Your task to perform on an android device: remove spam from my inbox in the gmail app Image 0: 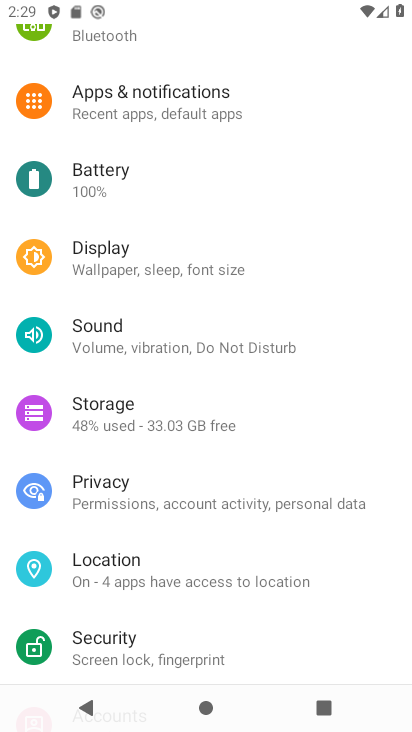
Step 0: press back button
Your task to perform on an android device: remove spam from my inbox in the gmail app Image 1: 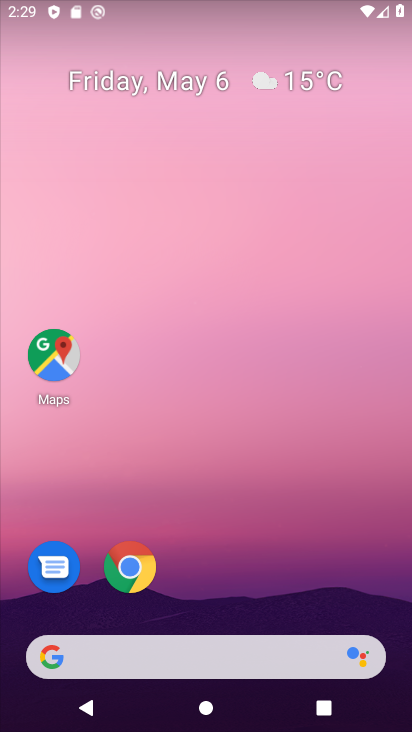
Step 1: drag from (174, 624) to (252, 39)
Your task to perform on an android device: remove spam from my inbox in the gmail app Image 2: 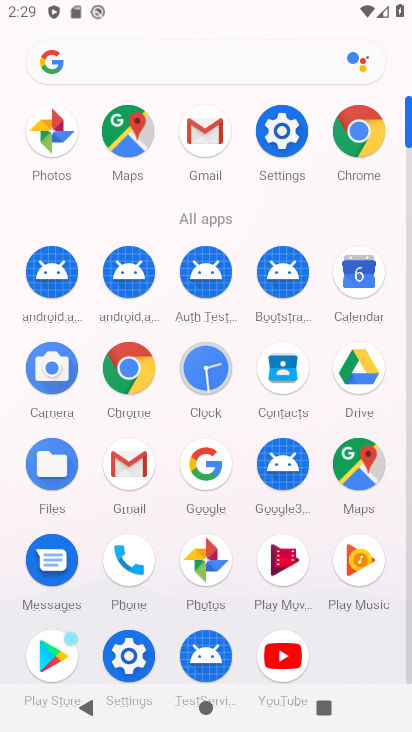
Step 2: click (122, 467)
Your task to perform on an android device: remove spam from my inbox in the gmail app Image 3: 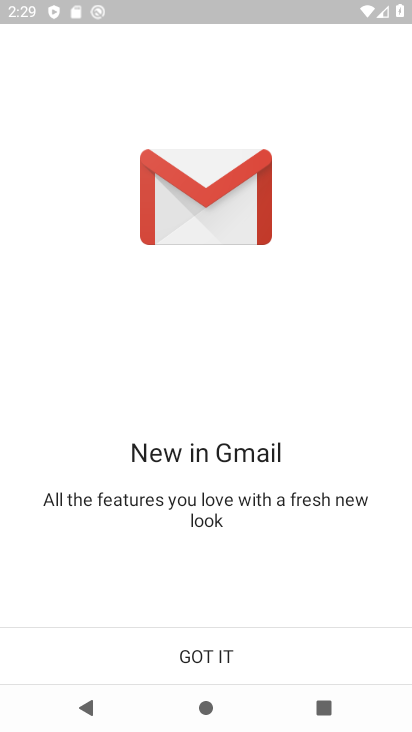
Step 3: click (218, 652)
Your task to perform on an android device: remove spam from my inbox in the gmail app Image 4: 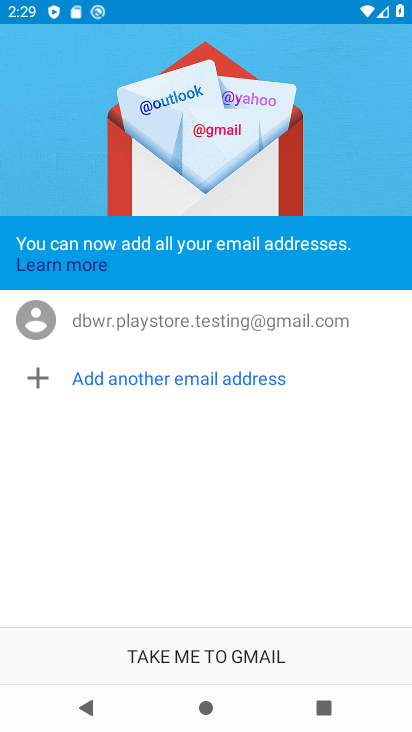
Step 4: click (218, 652)
Your task to perform on an android device: remove spam from my inbox in the gmail app Image 5: 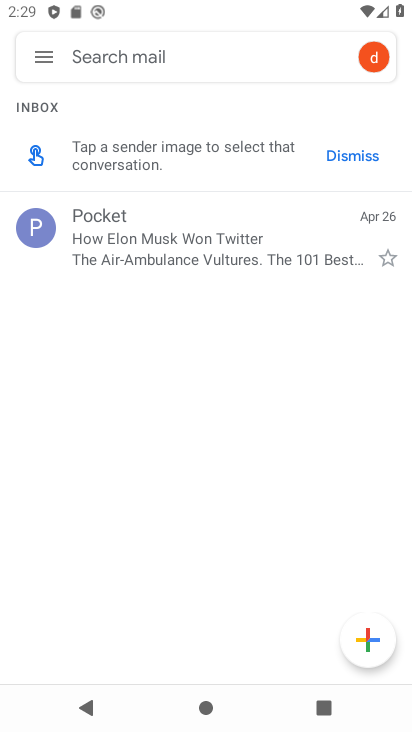
Step 5: click (55, 57)
Your task to perform on an android device: remove spam from my inbox in the gmail app Image 6: 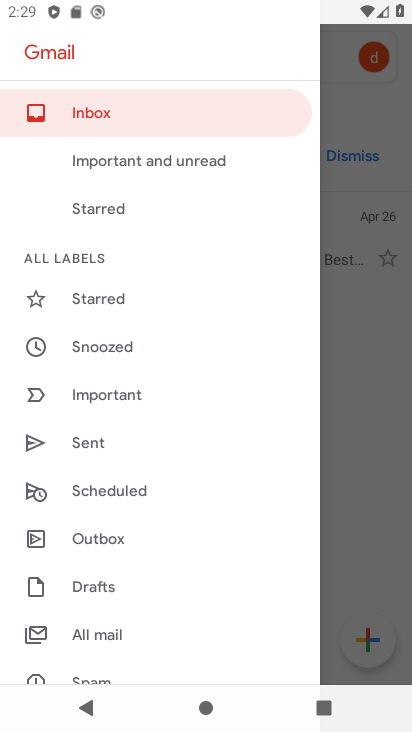
Step 6: drag from (135, 626) to (188, 383)
Your task to perform on an android device: remove spam from my inbox in the gmail app Image 7: 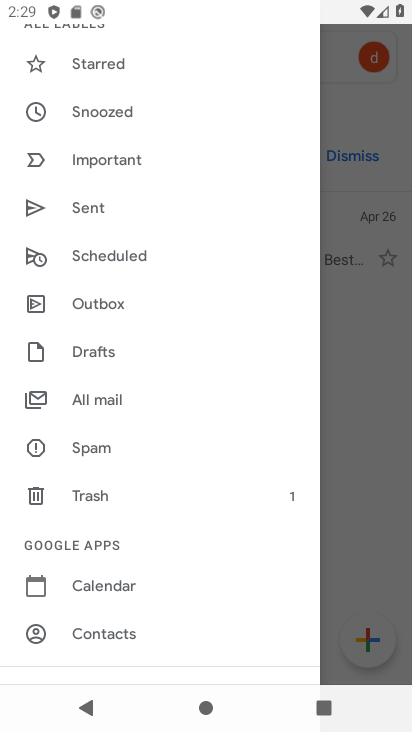
Step 7: click (117, 447)
Your task to perform on an android device: remove spam from my inbox in the gmail app Image 8: 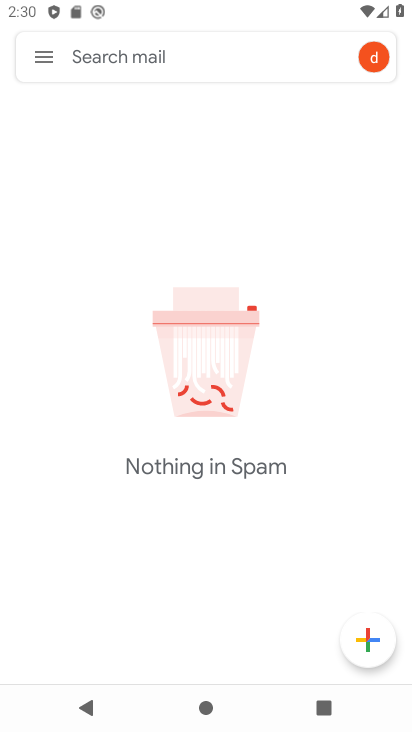
Step 8: task complete